Your task to perform on an android device: Go to notification settings Image 0: 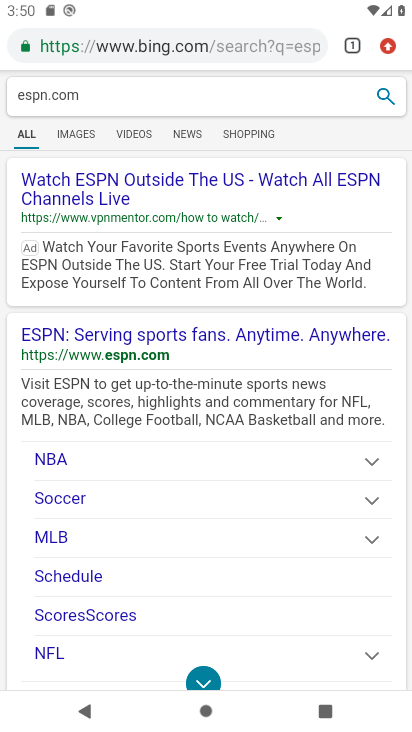
Step 0: press home button
Your task to perform on an android device: Go to notification settings Image 1: 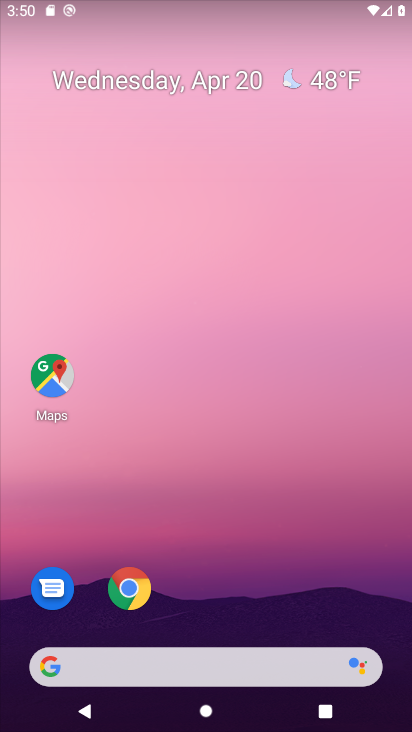
Step 1: drag from (300, 590) to (357, 145)
Your task to perform on an android device: Go to notification settings Image 2: 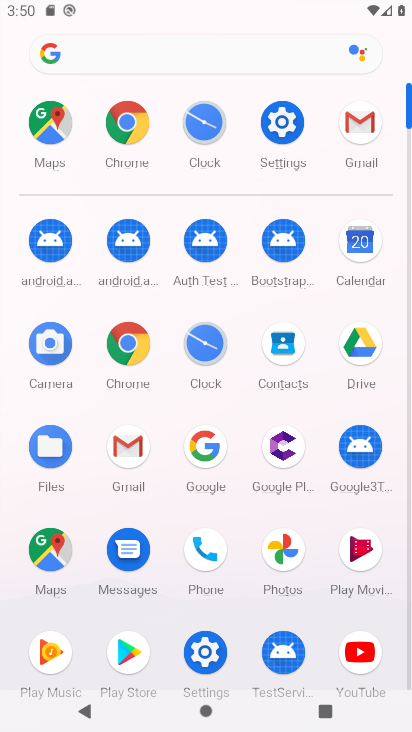
Step 2: click (197, 643)
Your task to perform on an android device: Go to notification settings Image 3: 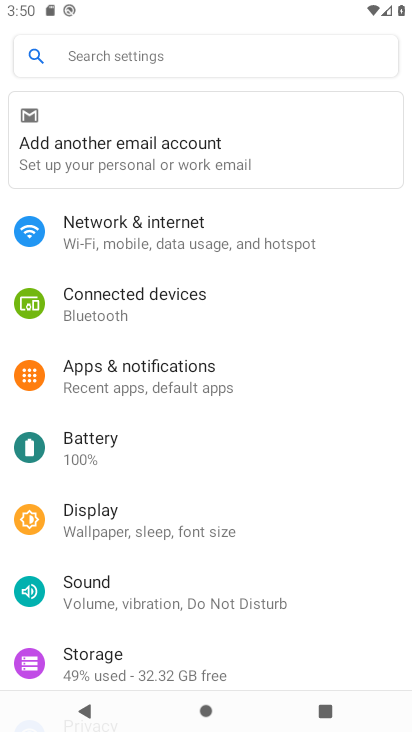
Step 3: drag from (366, 624) to (9, 578)
Your task to perform on an android device: Go to notification settings Image 4: 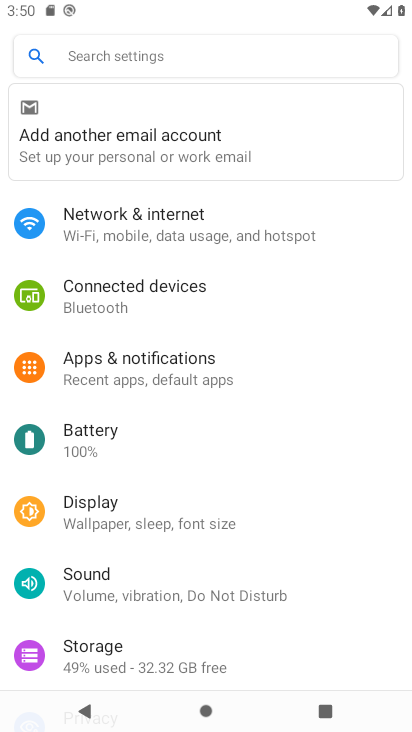
Step 4: drag from (337, 573) to (366, 320)
Your task to perform on an android device: Go to notification settings Image 5: 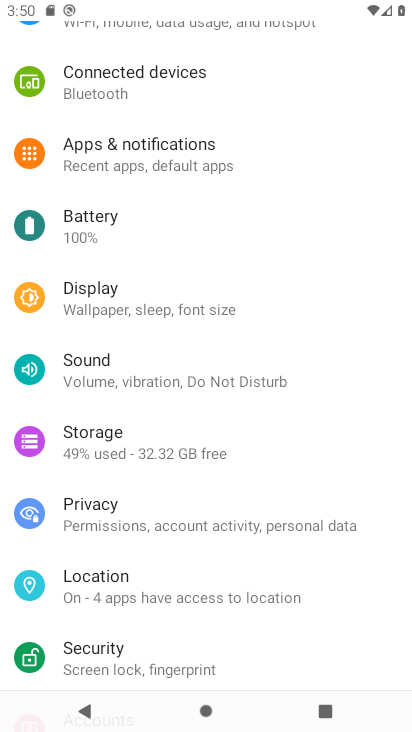
Step 5: drag from (309, 621) to (362, 352)
Your task to perform on an android device: Go to notification settings Image 6: 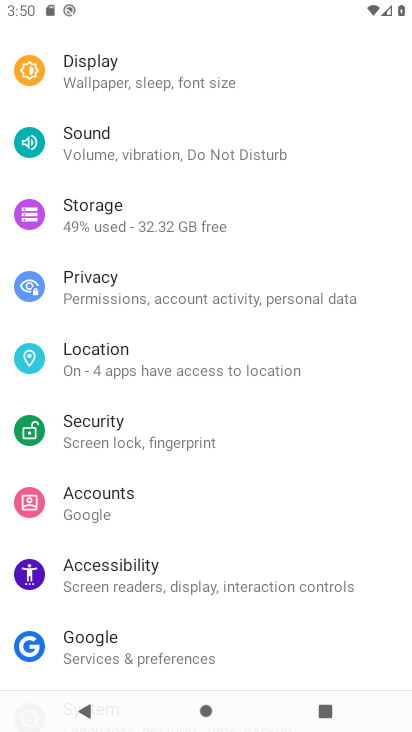
Step 6: drag from (345, 218) to (285, 478)
Your task to perform on an android device: Go to notification settings Image 7: 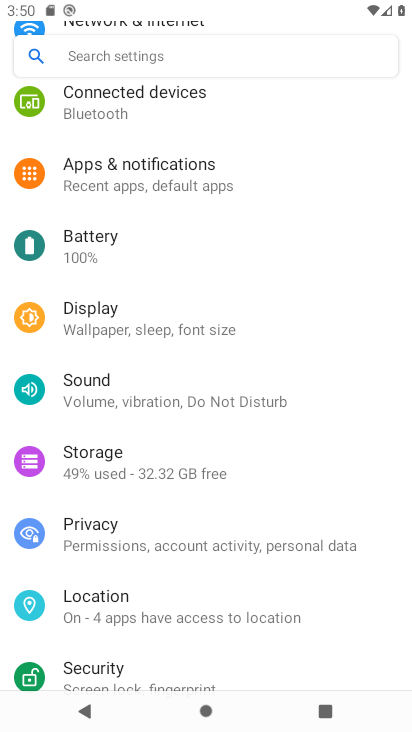
Step 7: drag from (327, 234) to (321, 463)
Your task to perform on an android device: Go to notification settings Image 8: 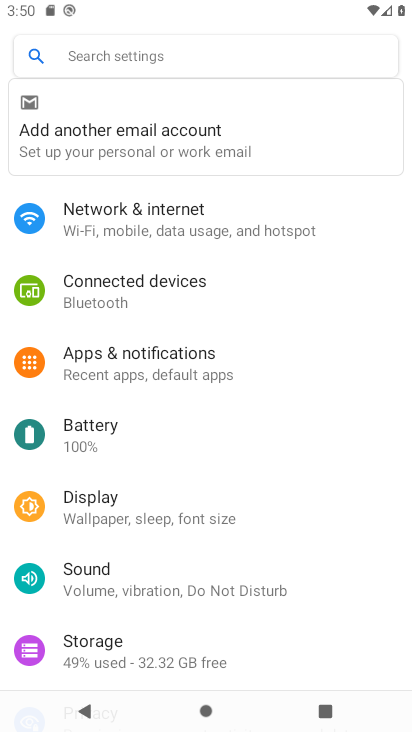
Step 8: click (202, 366)
Your task to perform on an android device: Go to notification settings Image 9: 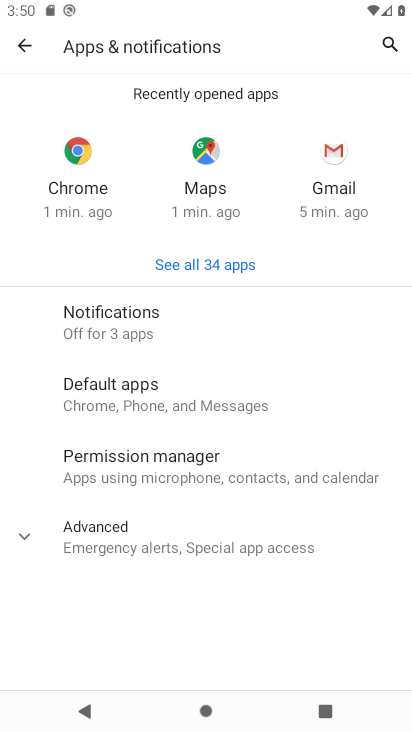
Step 9: click (148, 322)
Your task to perform on an android device: Go to notification settings Image 10: 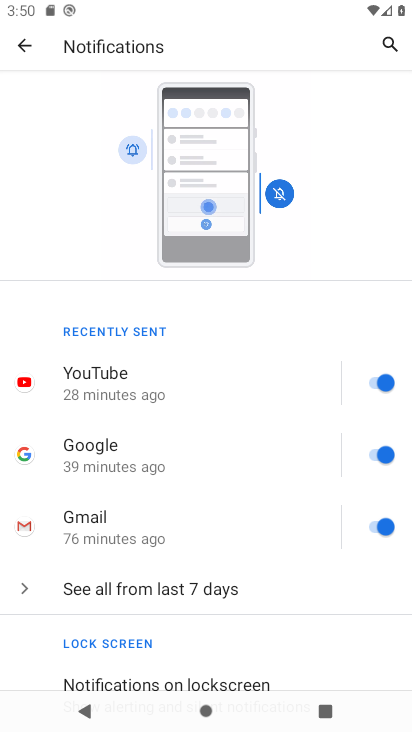
Step 10: task complete